Your task to perform on an android device: Go to location settings Image 0: 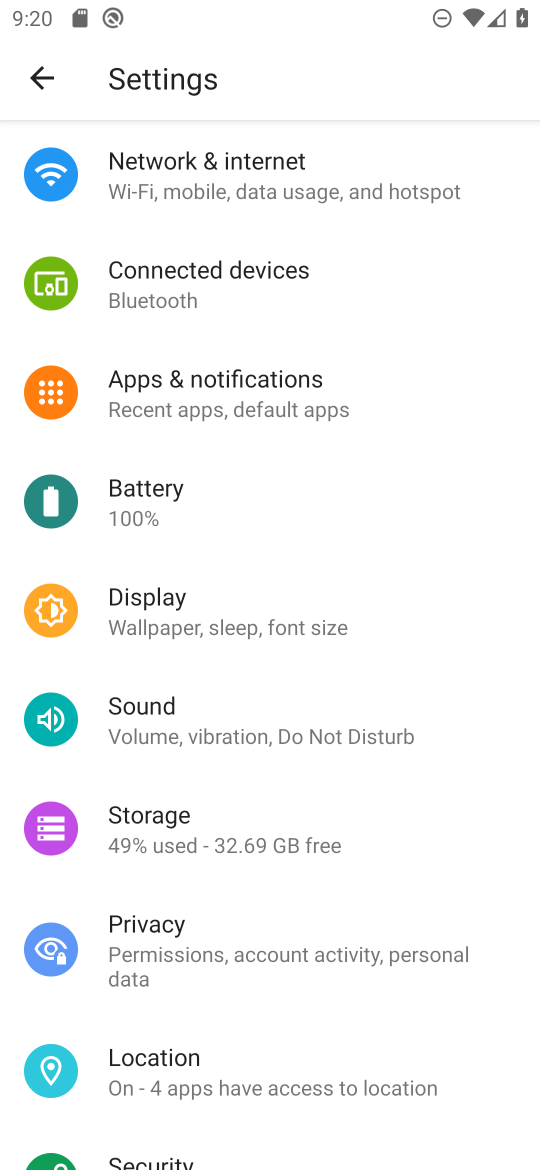
Step 0: drag from (125, 931) to (170, 463)
Your task to perform on an android device: Go to location settings Image 1: 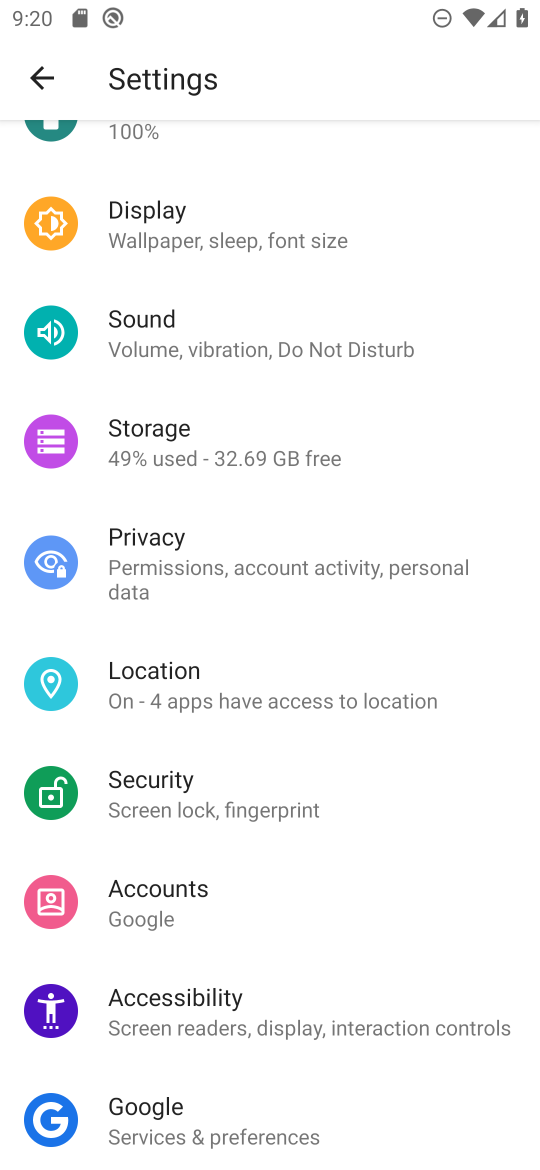
Step 1: click (156, 672)
Your task to perform on an android device: Go to location settings Image 2: 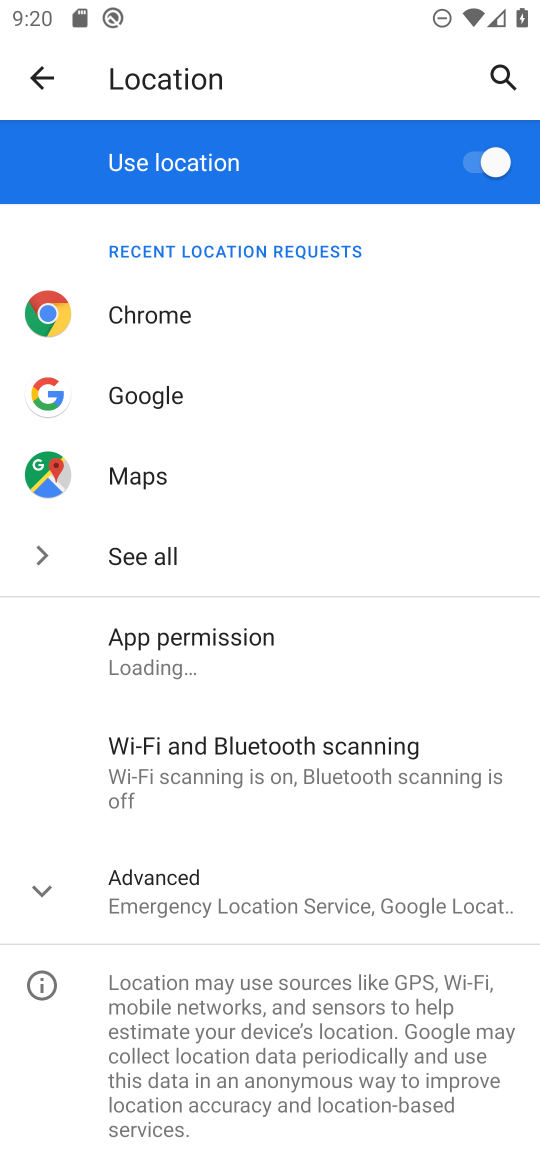
Step 2: task complete